Your task to perform on an android device: Open calendar and show me the fourth week of next month Image 0: 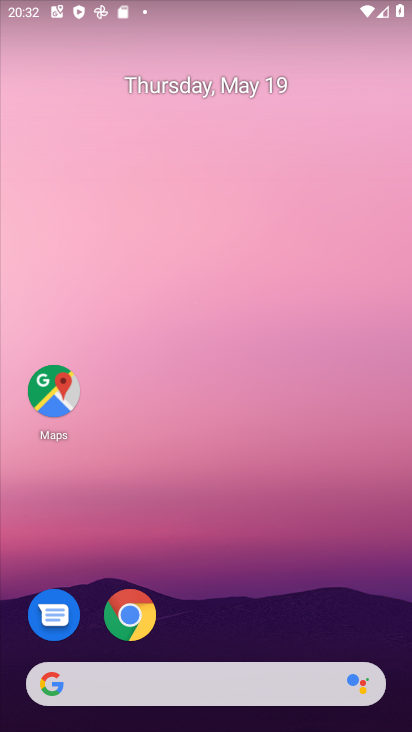
Step 0: drag from (218, 566) to (211, 46)
Your task to perform on an android device: Open calendar and show me the fourth week of next month Image 1: 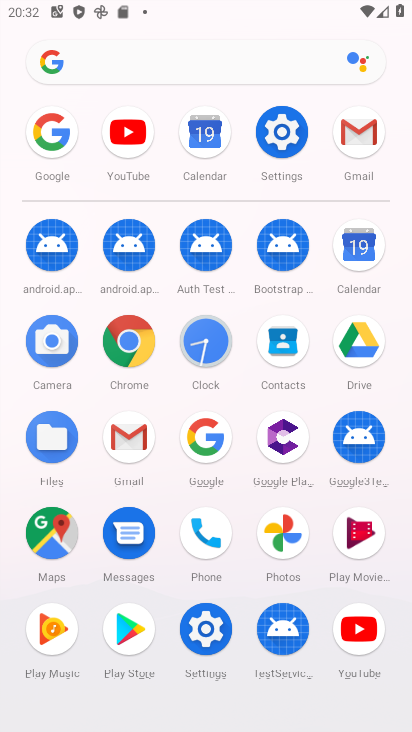
Step 1: click (347, 247)
Your task to perform on an android device: Open calendar and show me the fourth week of next month Image 2: 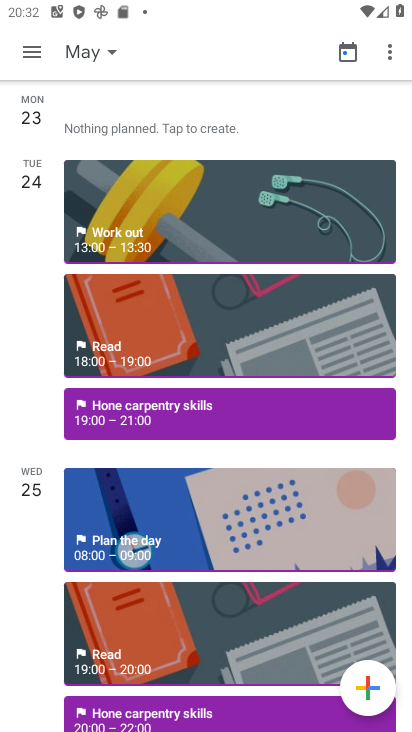
Step 2: click (101, 48)
Your task to perform on an android device: Open calendar and show me the fourth week of next month Image 3: 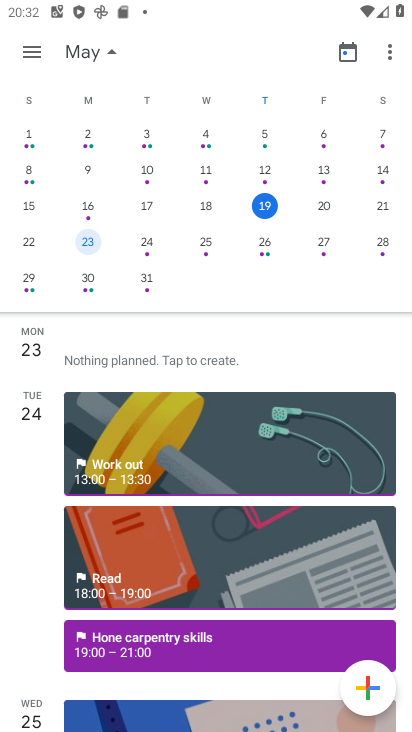
Step 3: drag from (387, 283) to (0, 251)
Your task to perform on an android device: Open calendar and show me the fourth week of next month Image 4: 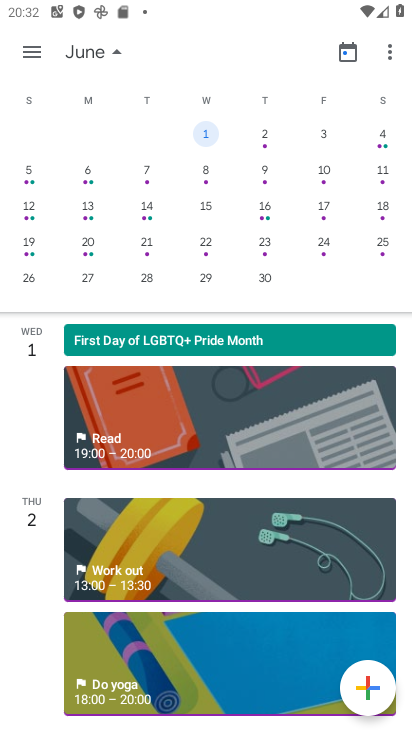
Step 4: click (211, 255)
Your task to perform on an android device: Open calendar and show me the fourth week of next month Image 5: 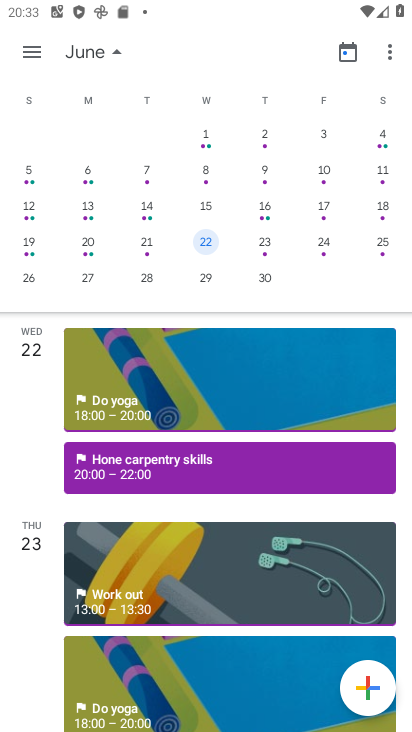
Step 5: task complete